Your task to perform on an android device: turn notification dots off Image 0: 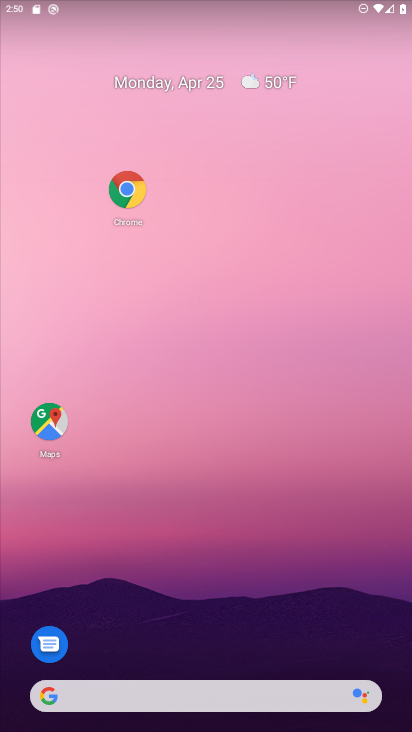
Step 0: drag from (130, 568) to (158, 148)
Your task to perform on an android device: turn notification dots off Image 1: 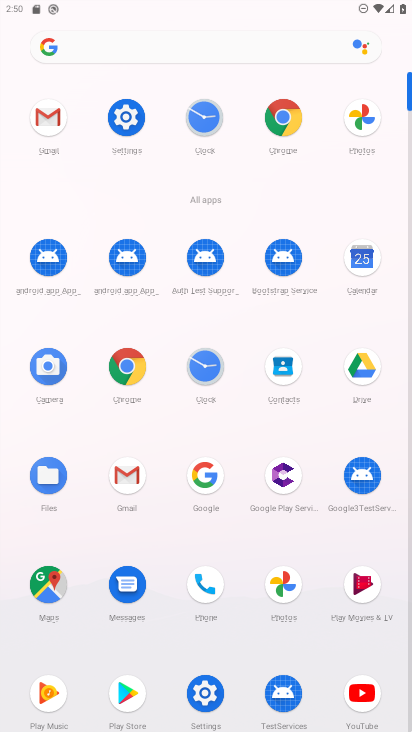
Step 1: click (281, 122)
Your task to perform on an android device: turn notification dots off Image 2: 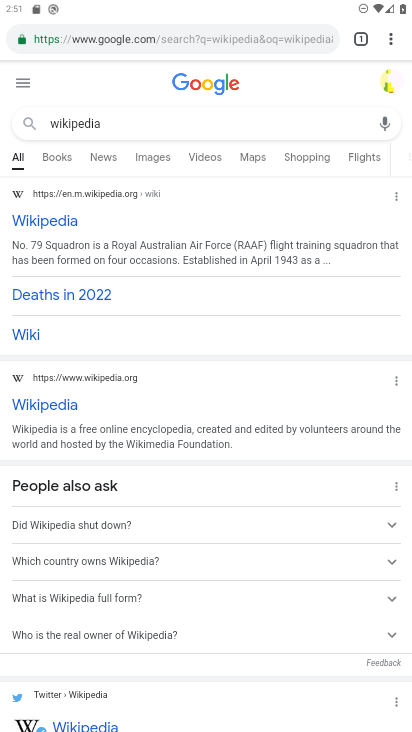
Step 2: click (391, 37)
Your task to perform on an android device: turn notification dots off Image 3: 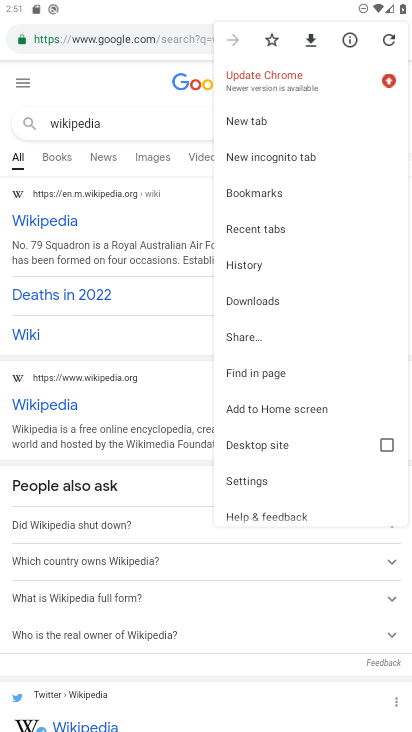
Step 3: click (261, 479)
Your task to perform on an android device: turn notification dots off Image 4: 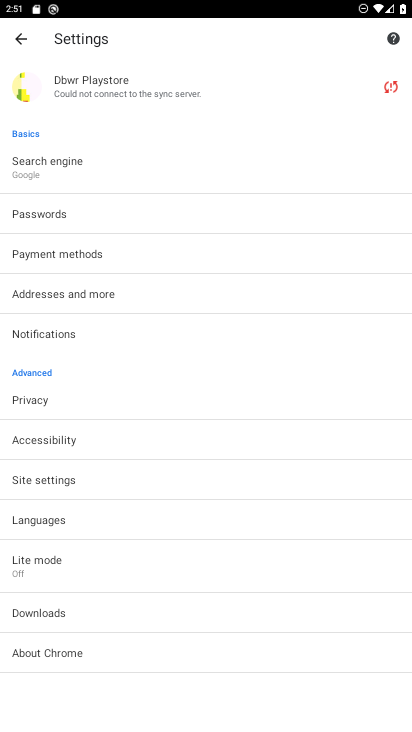
Step 4: click (61, 328)
Your task to perform on an android device: turn notification dots off Image 5: 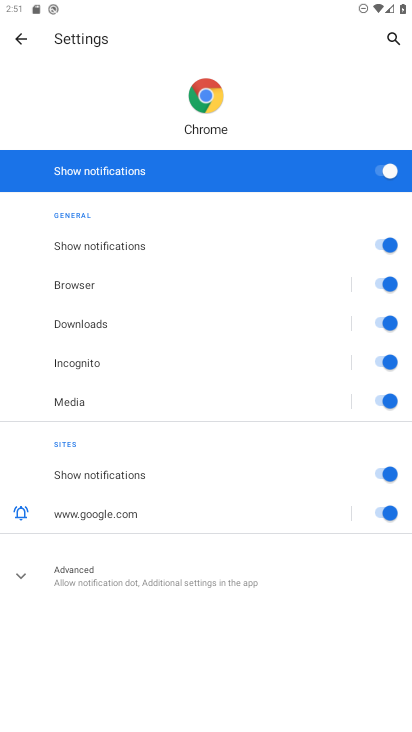
Step 5: click (26, 576)
Your task to perform on an android device: turn notification dots off Image 6: 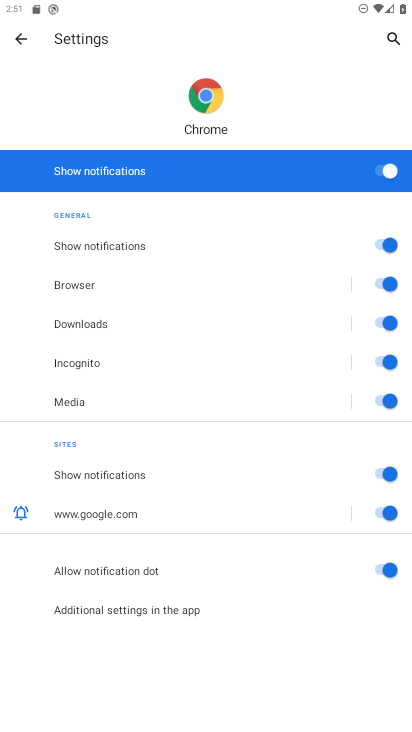
Step 6: click (388, 567)
Your task to perform on an android device: turn notification dots off Image 7: 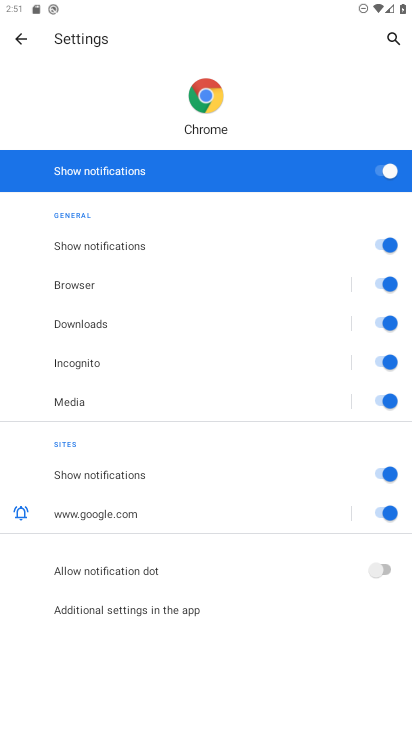
Step 7: task complete